Your task to perform on an android device: Go to ESPN.com Image 0: 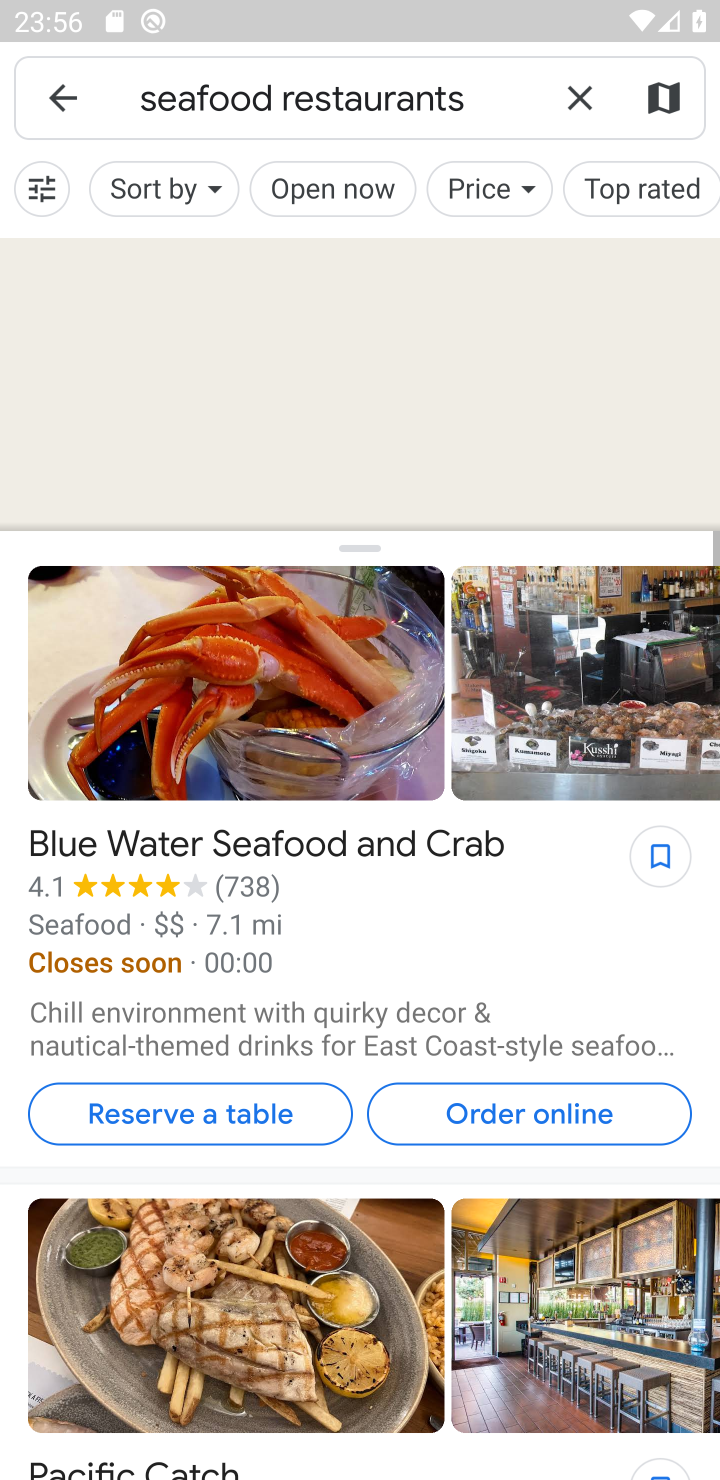
Step 0: press home button
Your task to perform on an android device: Go to ESPN.com Image 1: 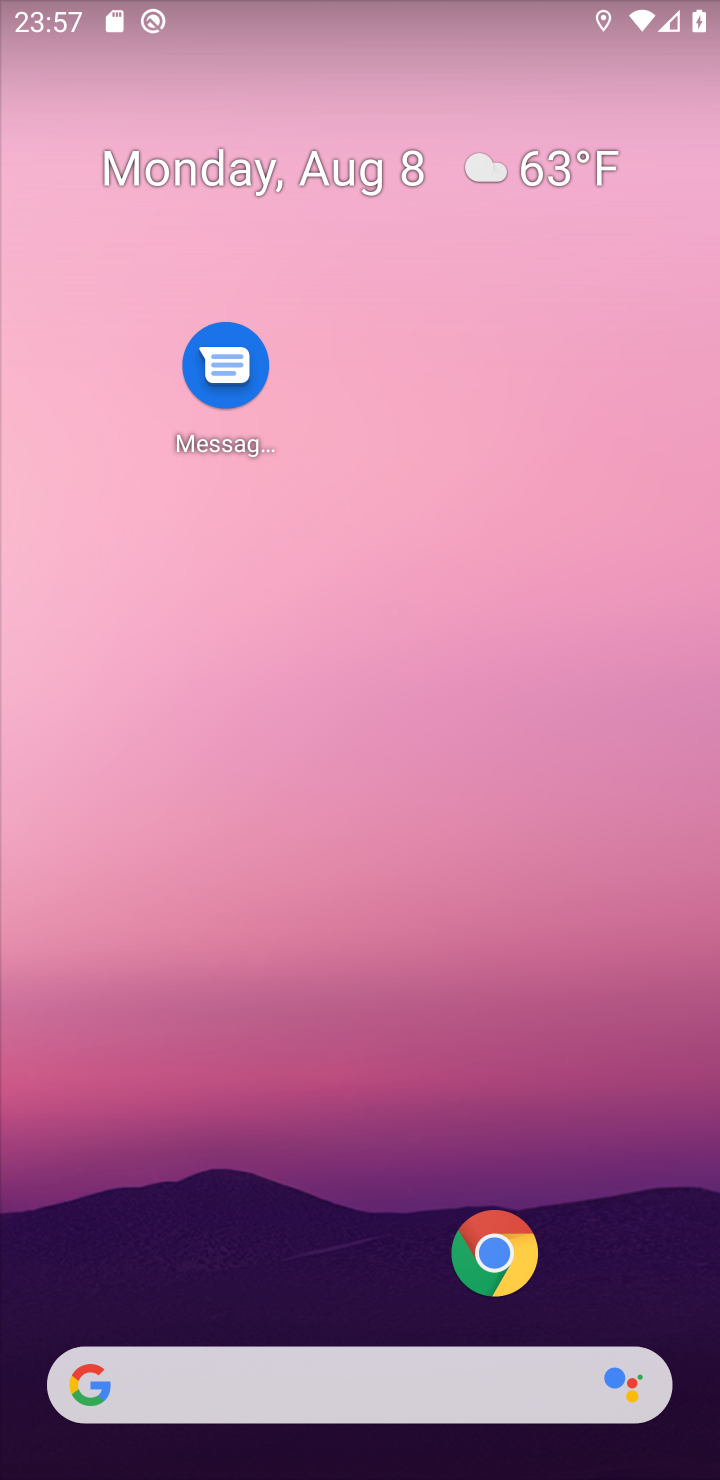
Step 1: drag from (365, 918) to (500, 303)
Your task to perform on an android device: Go to ESPN.com Image 2: 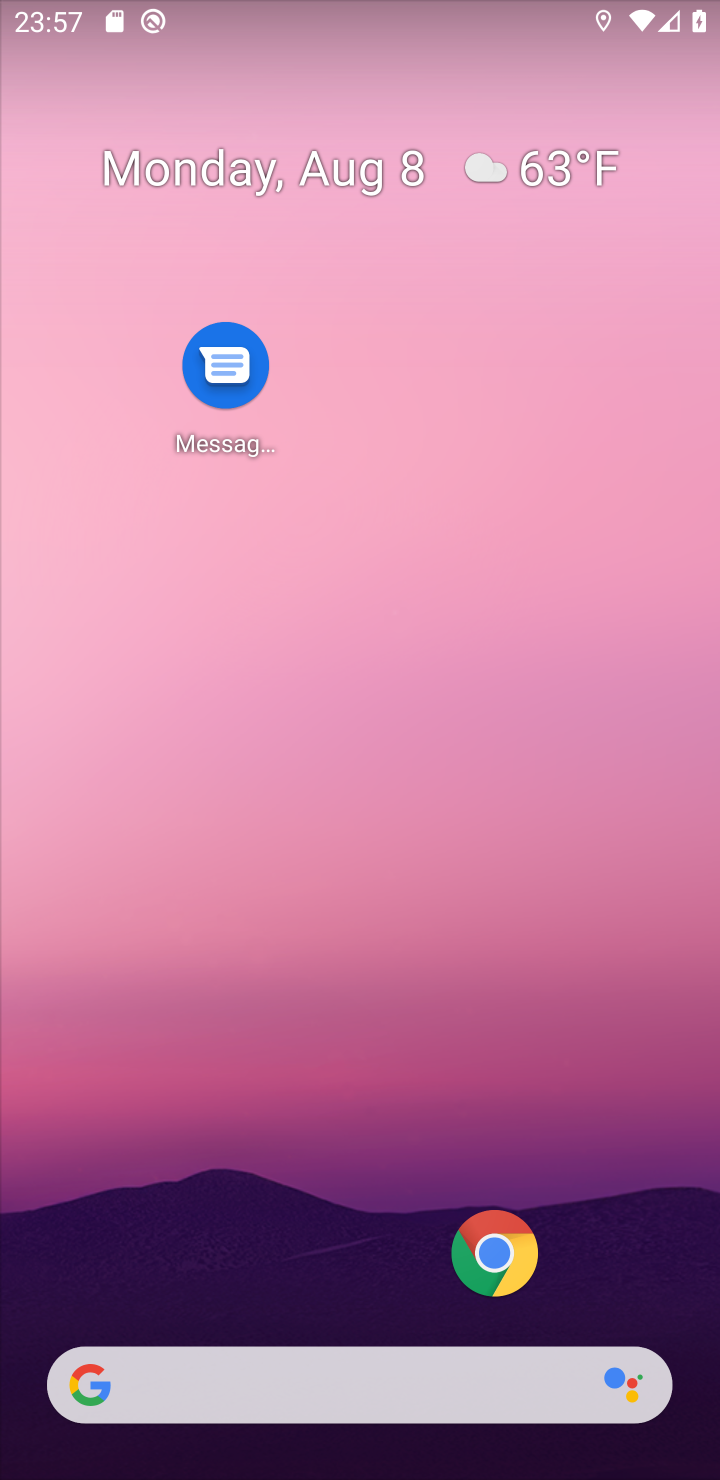
Step 2: drag from (258, 1195) to (468, 170)
Your task to perform on an android device: Go to ESPN.com Image 3: 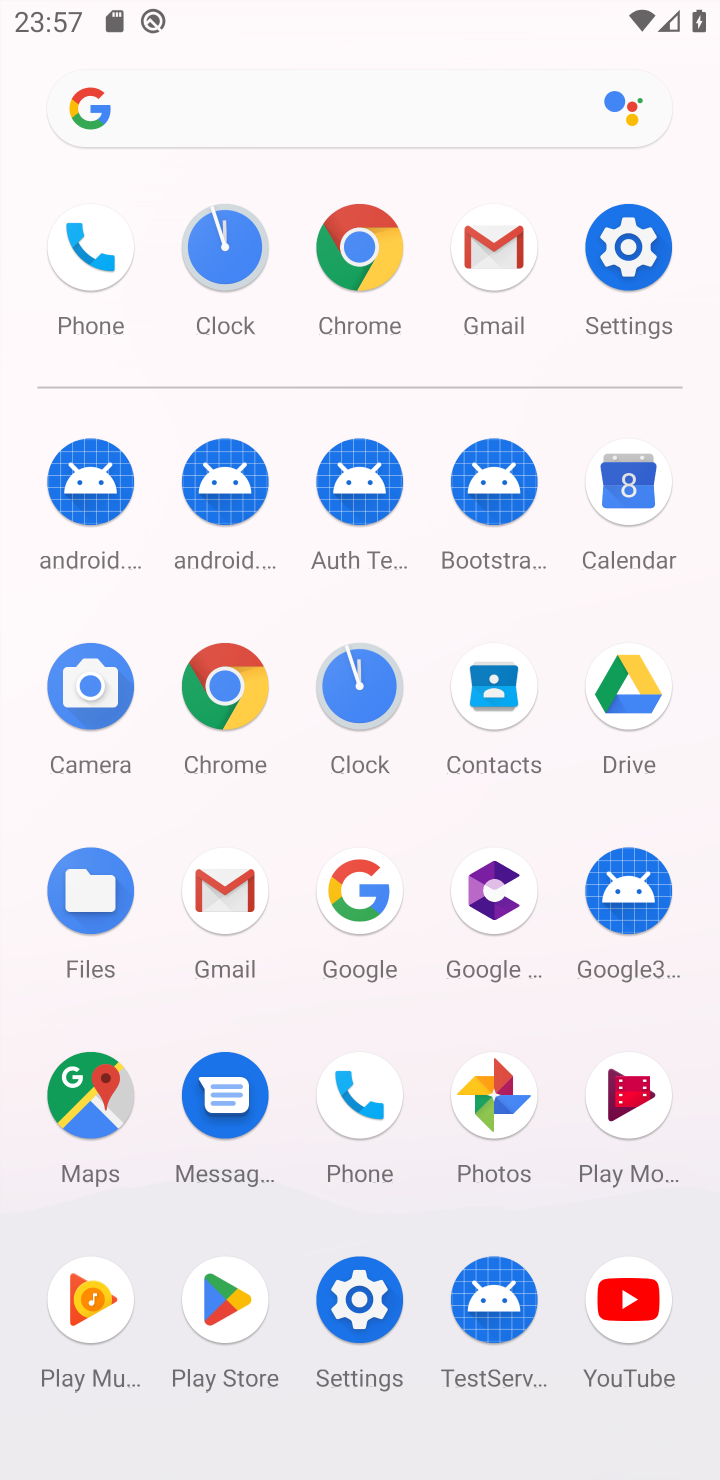
Step 3: click (218, 708)
Your task to perform on an android device: Go to ESPN.com Image 4: 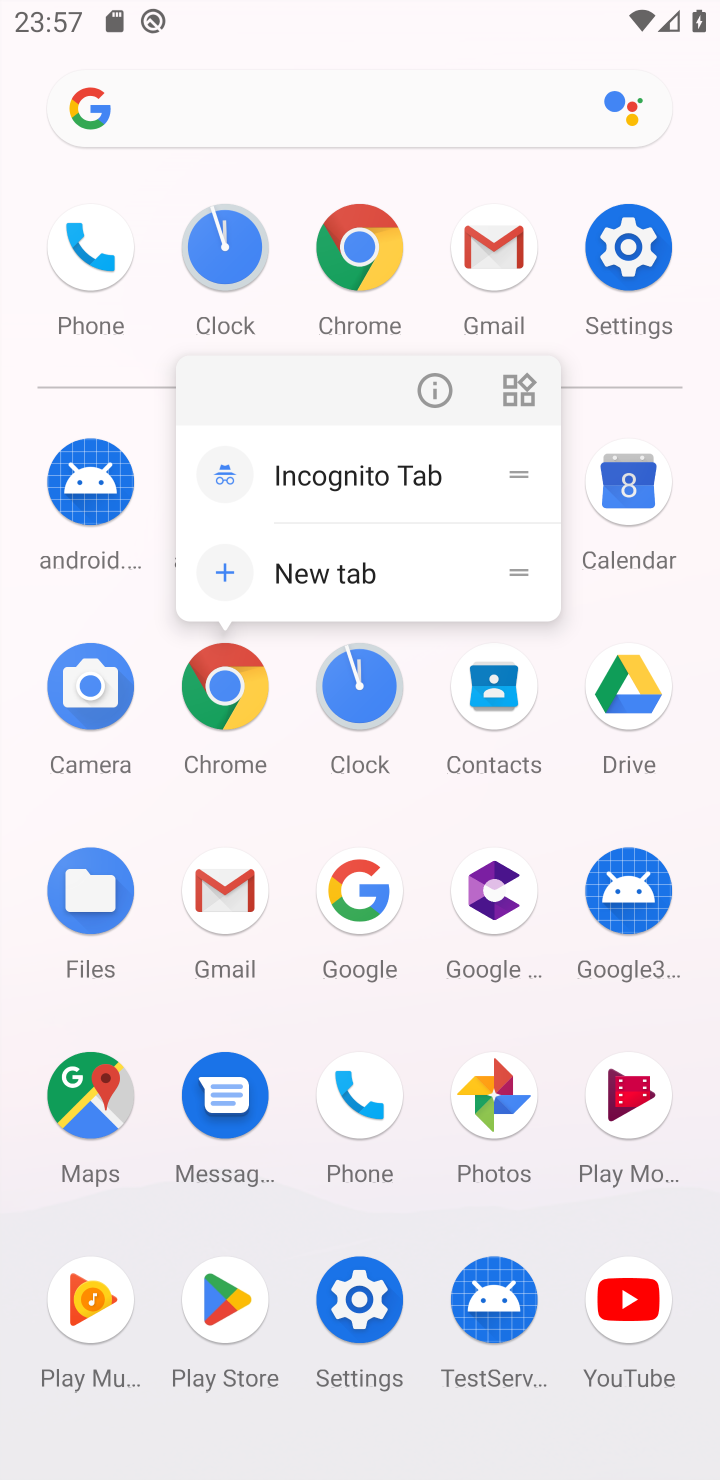
Step 4: click (233, 670)
Your task to perform on an android device: Go to ESPN.com Image 5: 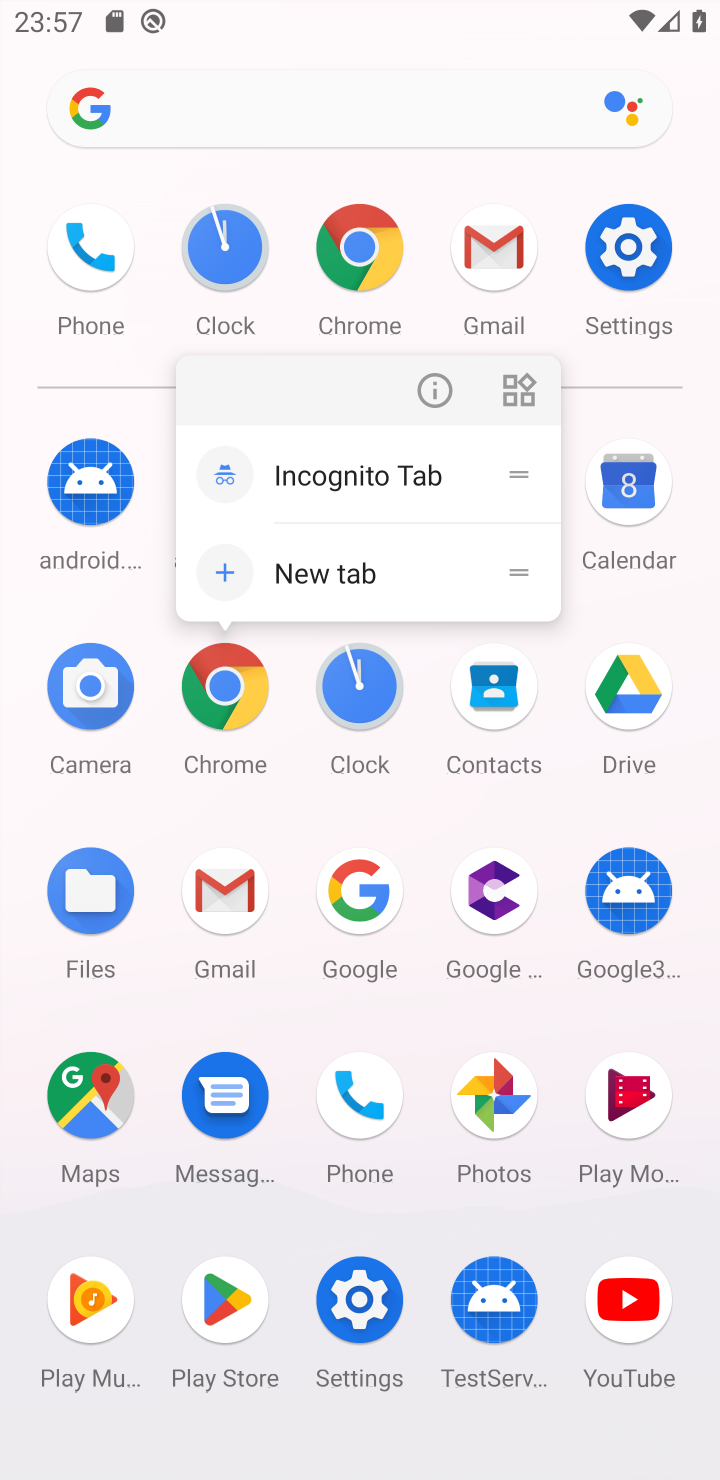
Step 5: click (233, 670)
Your task to perform on an android device: Go to ESPN.com Image 6: 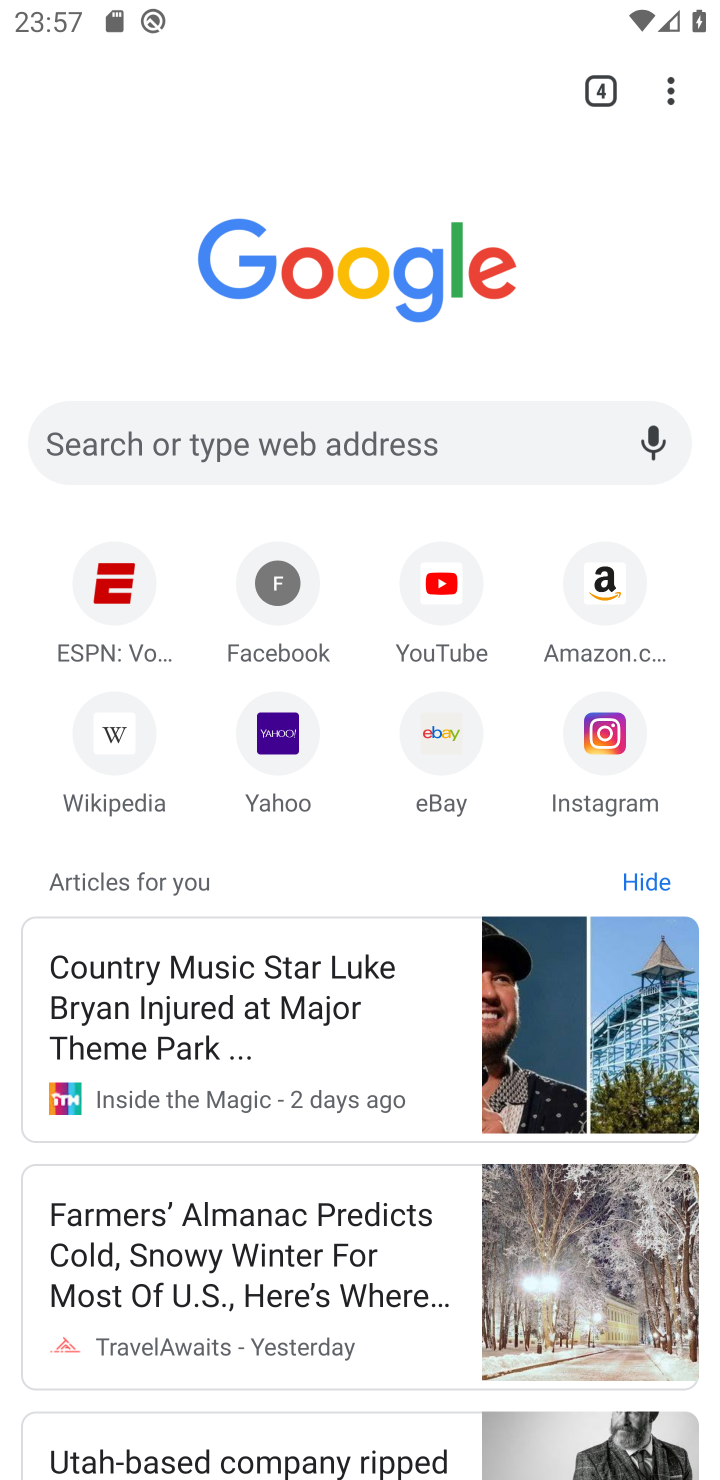
Step 6: click (89, 576)
Your task to perform on an android device: Go to ESPN.com Image 7: 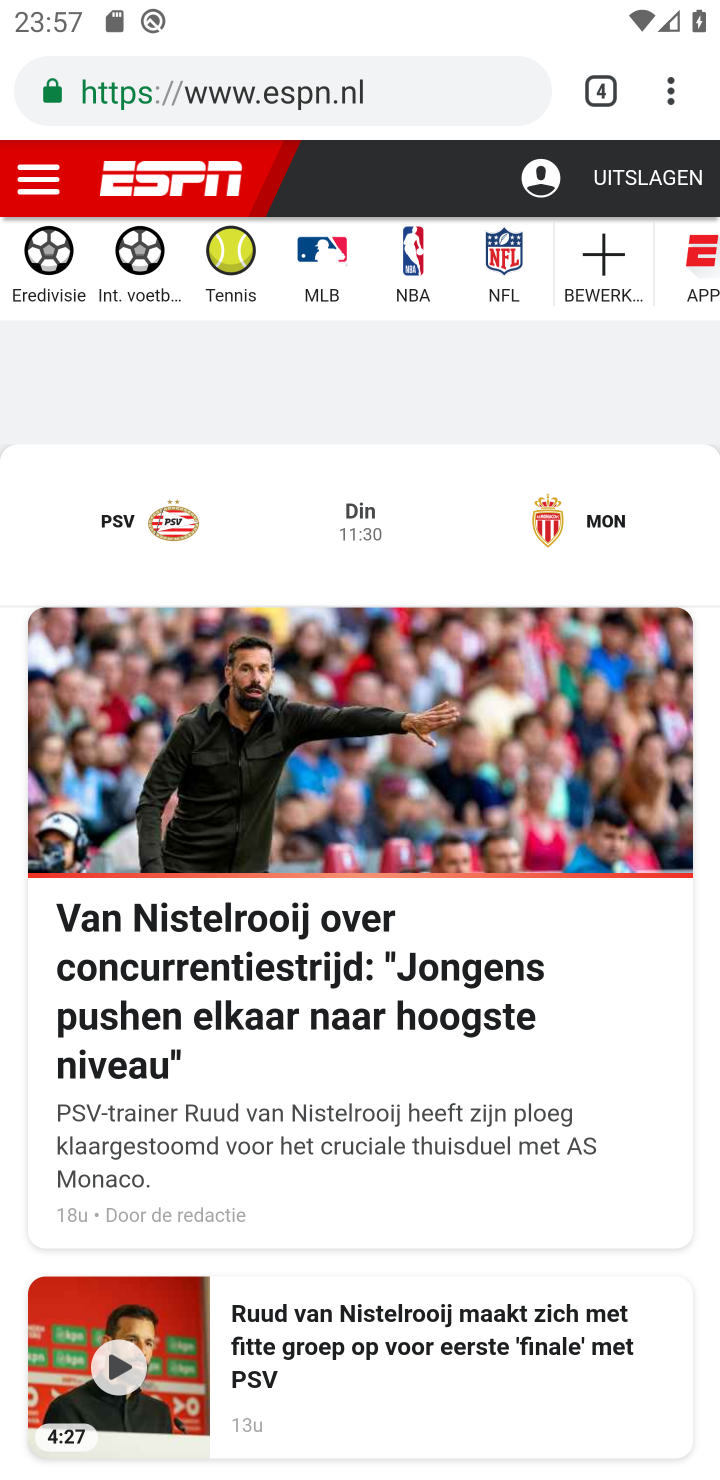
Step 7: task complete